Your task to perform on an android device: Go to ESPN.com Image 0: 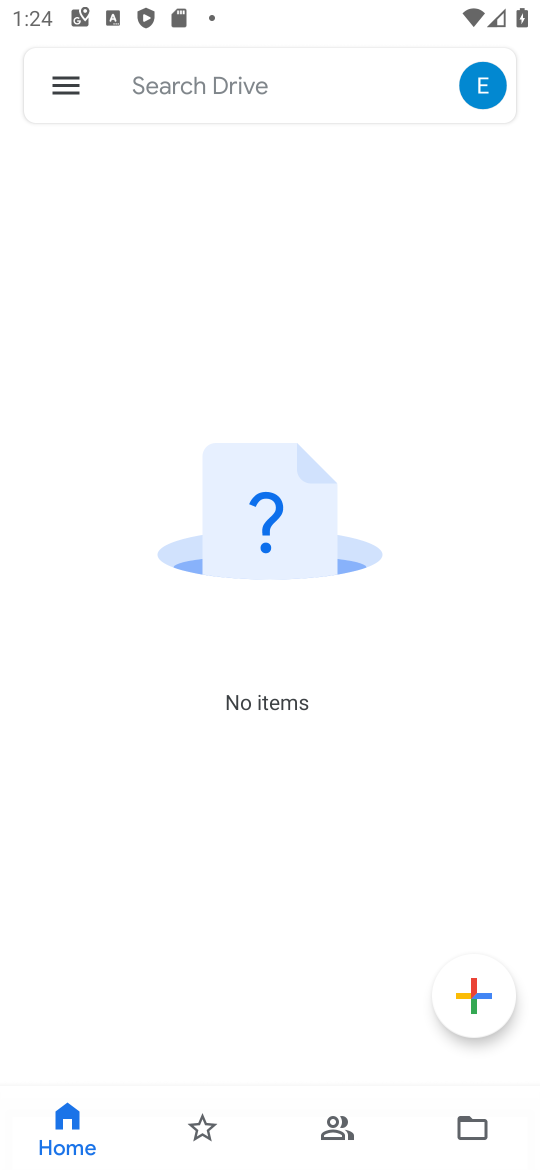
Step 0: press home button
Your task to perform on an android device: Go to ESPN.com Image 1: 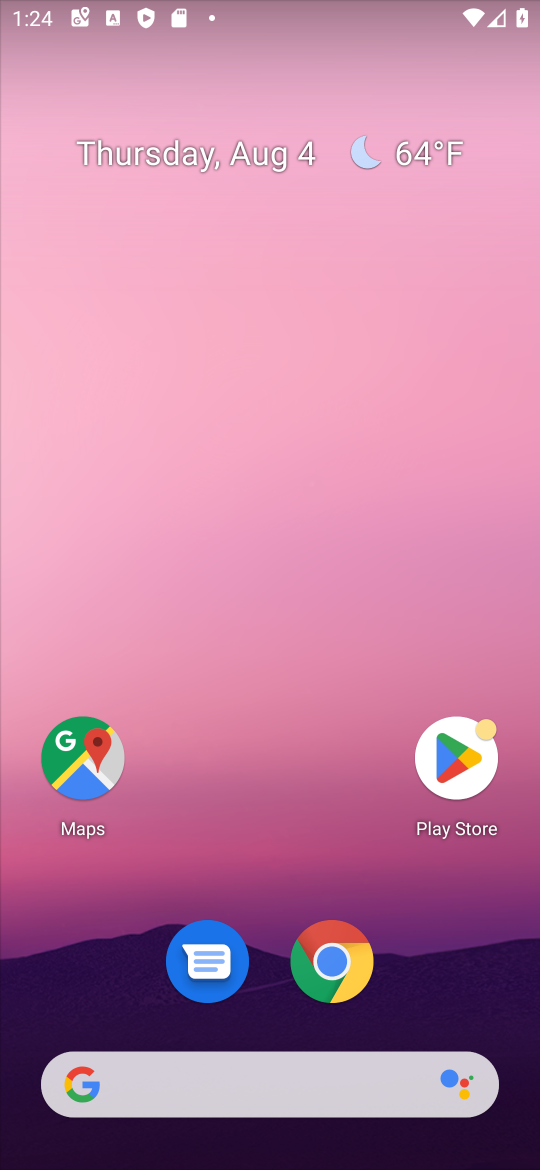
Step 1: click (271, 1098)
Your task to perform on an android device: Go to ESPN.com Image 2: 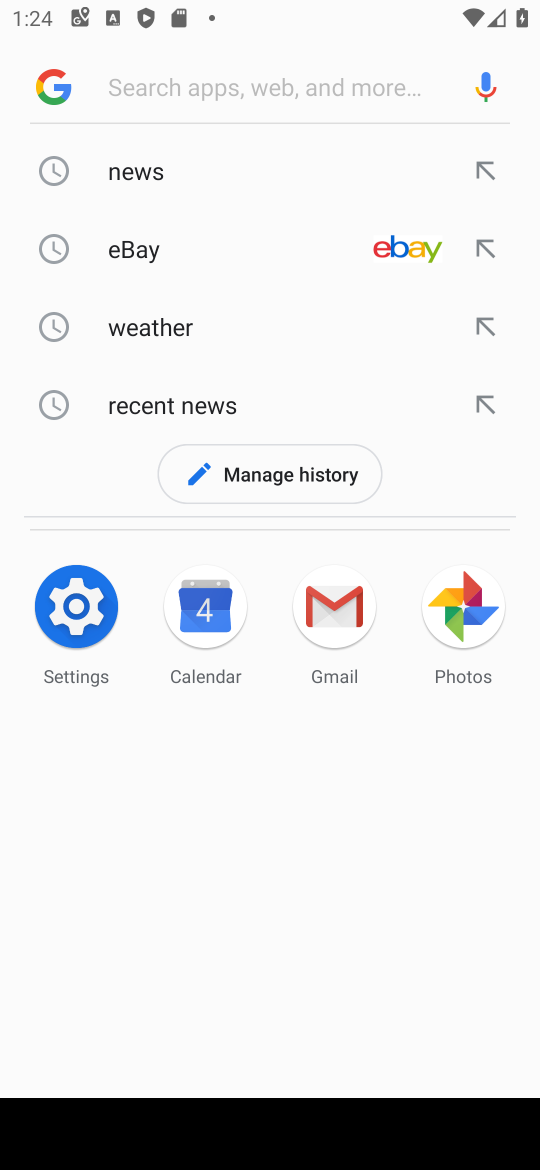
Step 2: type "espn.com"
Your task to perform on an android device: Go to ESPN.com Image 3: 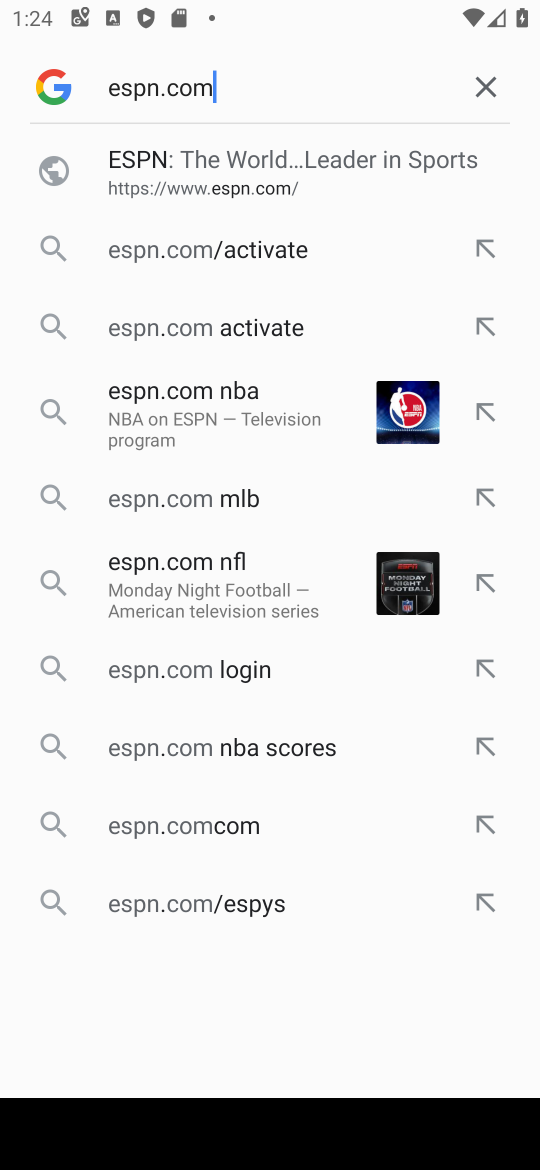
Step 3: click (273, 187)
Your task to perform on an android device: Go to ESPN.com Image 4: 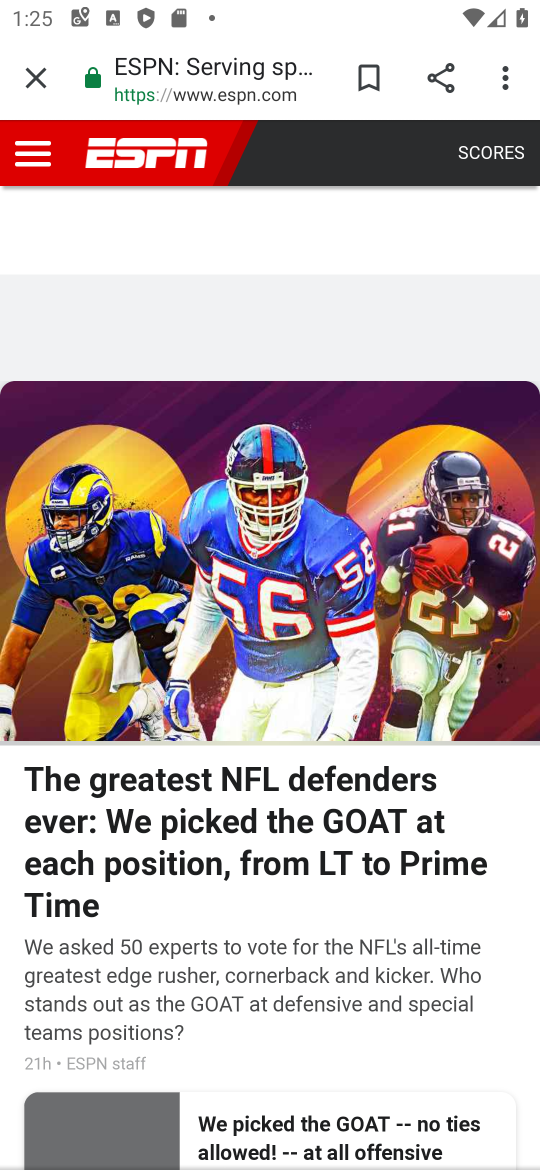
Step 4: task complete